Your task to perform on an android device: Go to privacy settings Image 0: 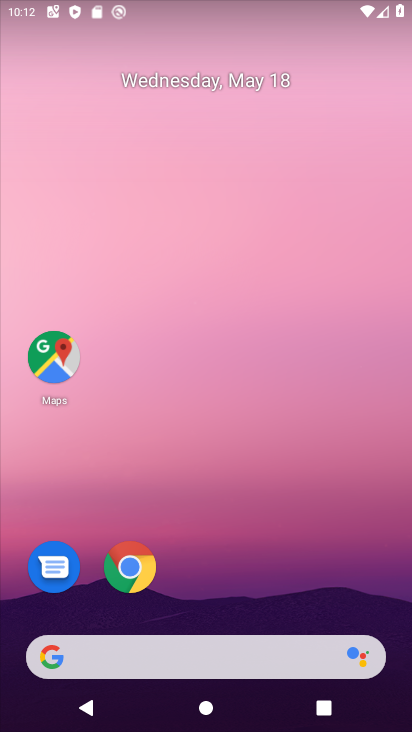
Step 0: drag from (256, 690) to (280, 239)
Your task to perform on an android device: Go to privacy settings Image 1: 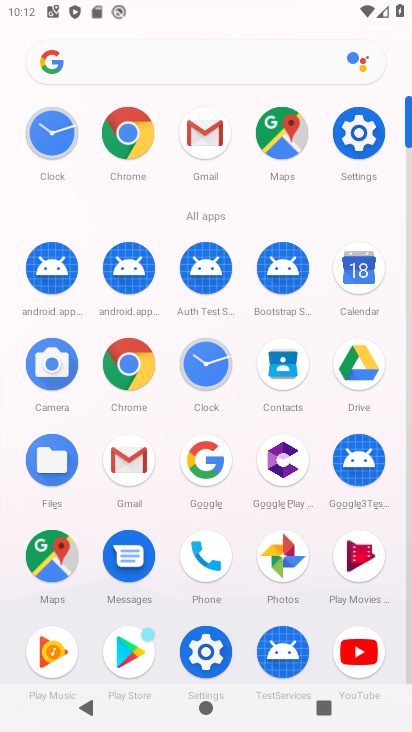
Step 1: click (357, 159)
Your task to perform on an android device: Go to privacy settings Image 2: 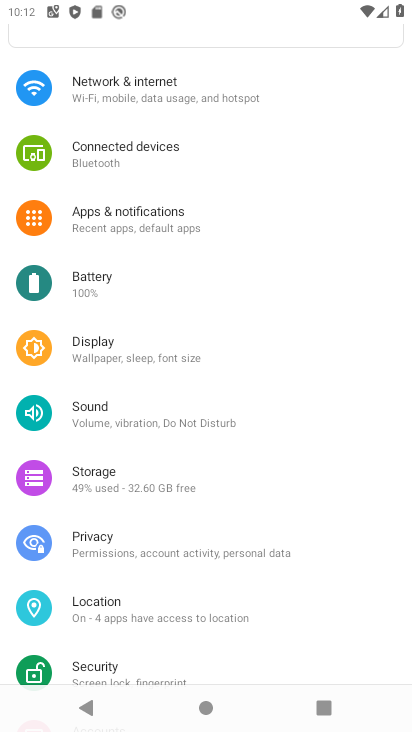
Step 2: click (109, 548)
Your task to perform on an android device: Go to privacy settings Image 3: 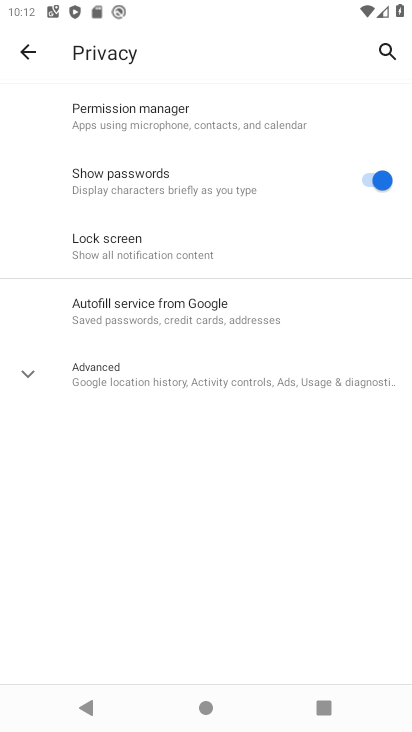
Step 3: task complete